Your task to perform on an android device: add a contact in the contacts app Image 0: 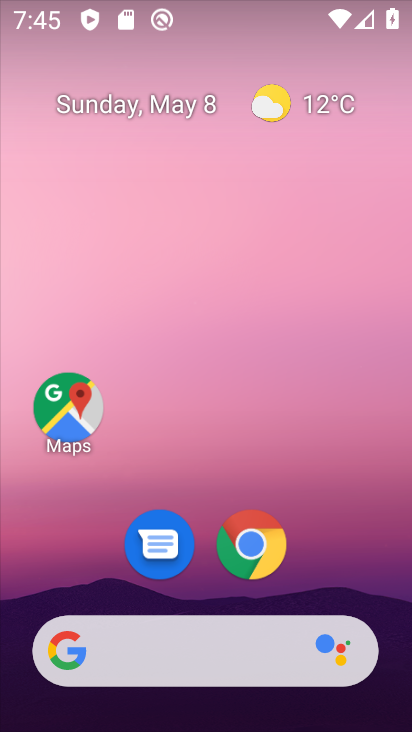
Step 0: drag from (327, 550) to (266, 129)
Your task to perform on an android device: add a contact in the contacts app Image 1: 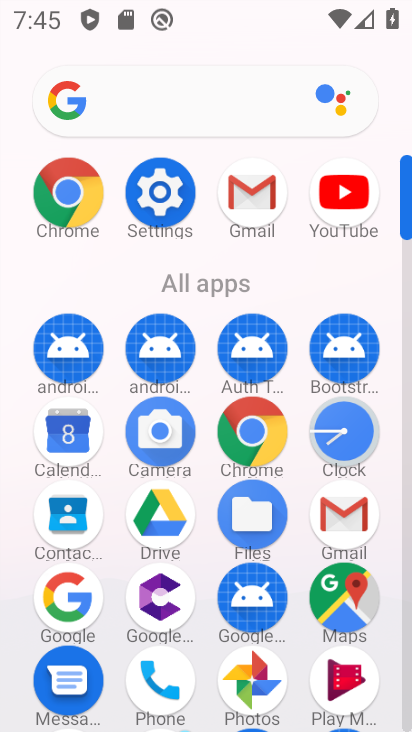
Step 1: click (66, 525)
Your task to perform on an android device: add a contact in the contacts app Image 2: 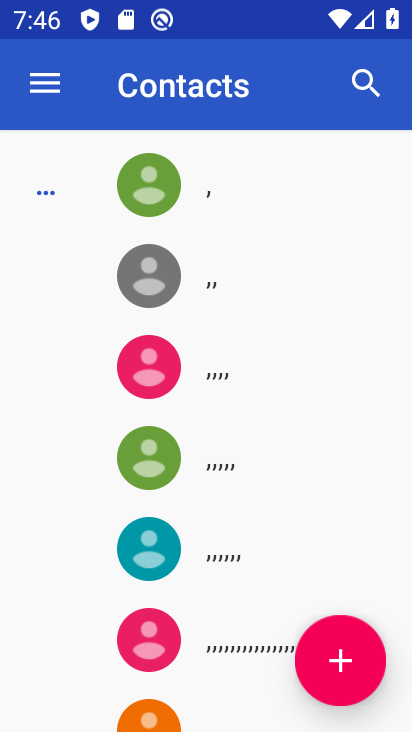
Step 2: click (318, 663)
Your task to perform on an android device: add a contact in the contacts app Image 3: 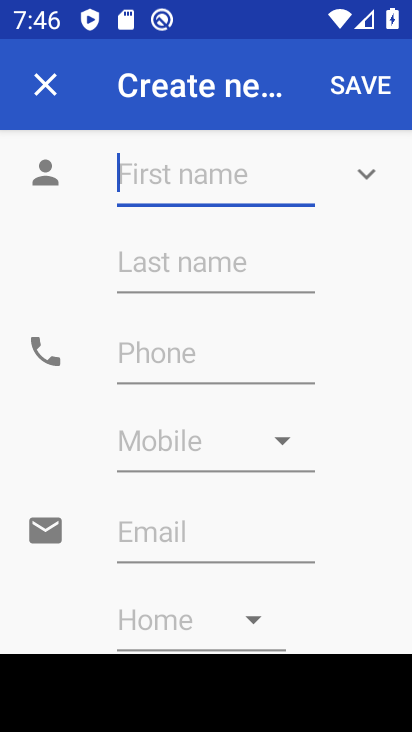
Step 3: type "hasd"
Your task to perform on an android device: add a contact in the contacts app Image 4: 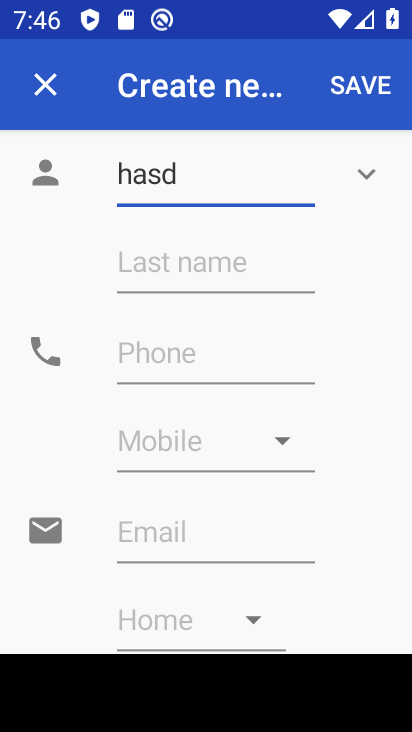
Step 4: click (177, 350)
Your task to perform on an android device: add a contact in the contacts app Image 5: 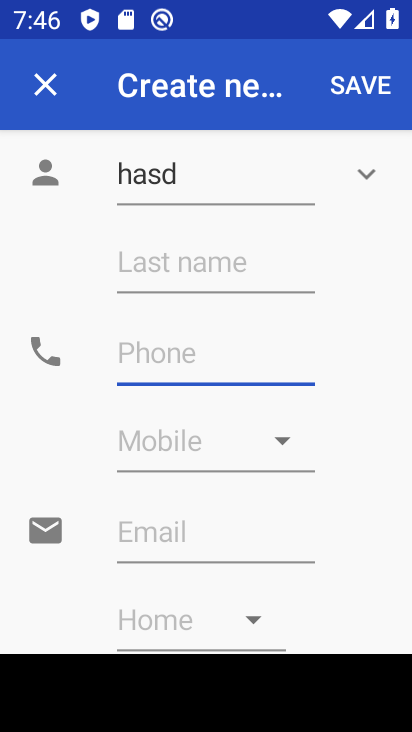
Step 5: type "6666"
Your task to perform on an android device: add a contact in the contacts app Image 6: 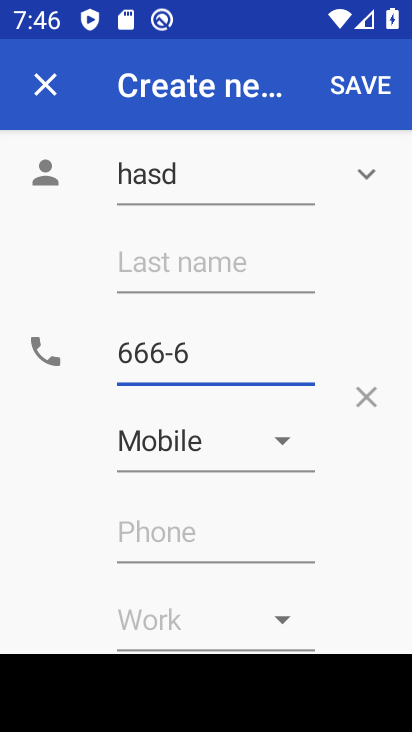
Step 6: click (343, 88)
Your task to perform on an android device: add a contact in the contacts app Image 7: 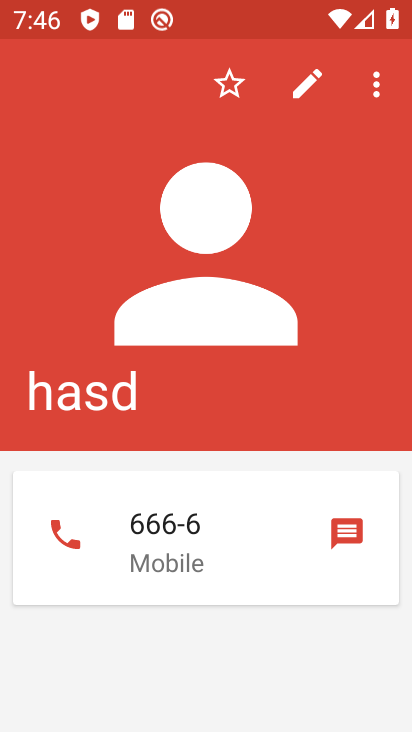
Step 7: task complete